Your task to perform on an android device: toggle wifi Image 0: 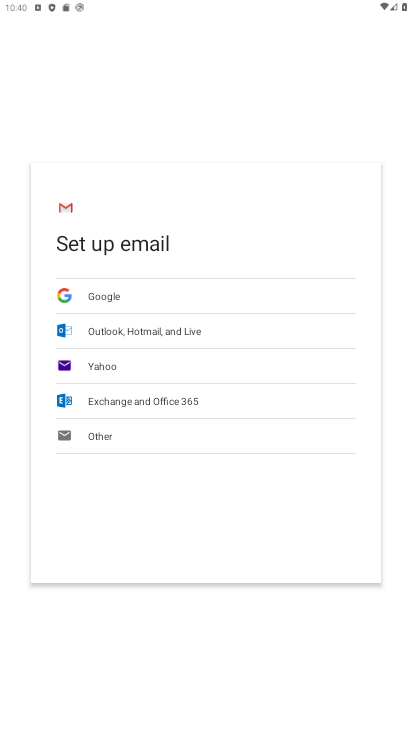
Step 0: press home button
Your task to perform on an android device: toggle wifi Image 1: 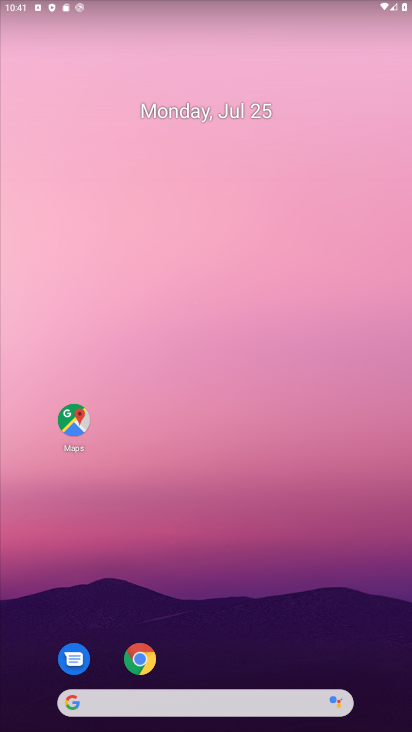
Step 1: drag from (222, 663) to (222, 219)
Your task to perform on an android device: toggle wifi Image 2: 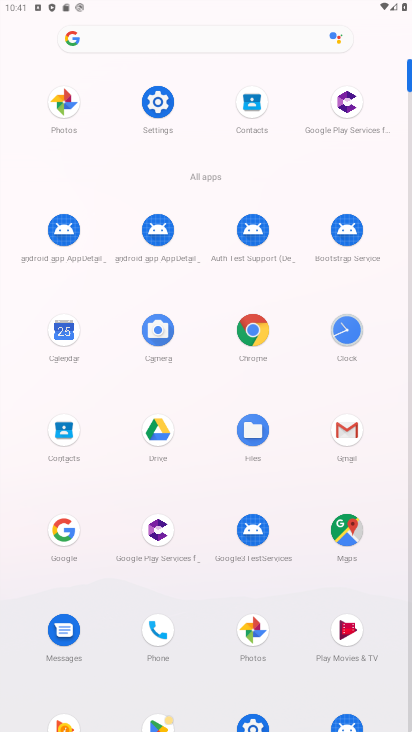
Step 2: click (146, 93)
Your task to perform on an android device: toggle wifi Image 3: 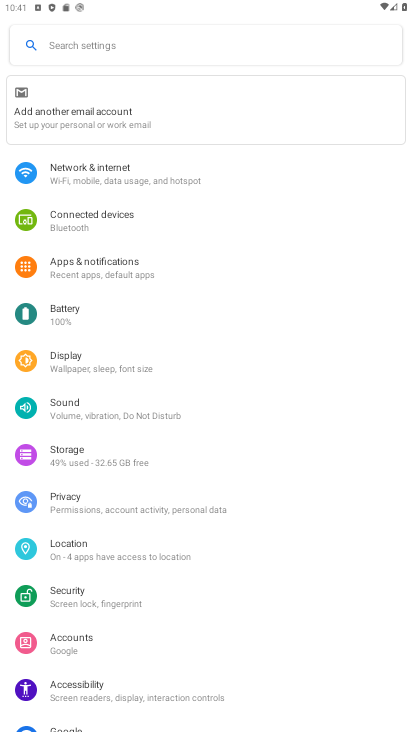
Step 3: click (112, 190)
Your task to perform on an android device: toggle wifi Image 4: 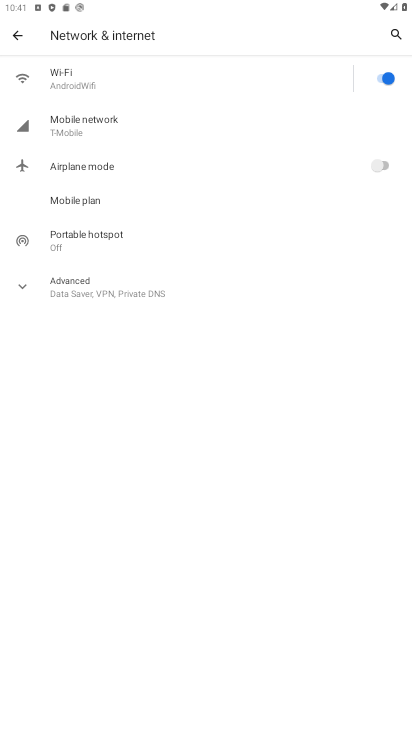
Step 4: click (388, 77)
Your task to perform on an android device: toggle wifi Image 5: 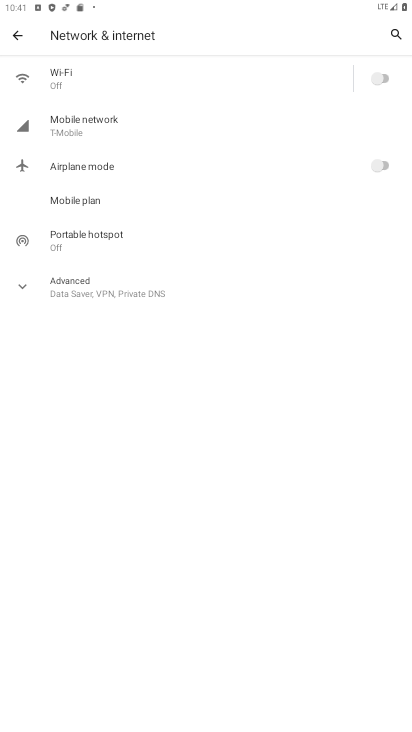
Step 5: task complete